Your task to perform on an android device: install app "DoorDash - Food Delivery" Image 0: 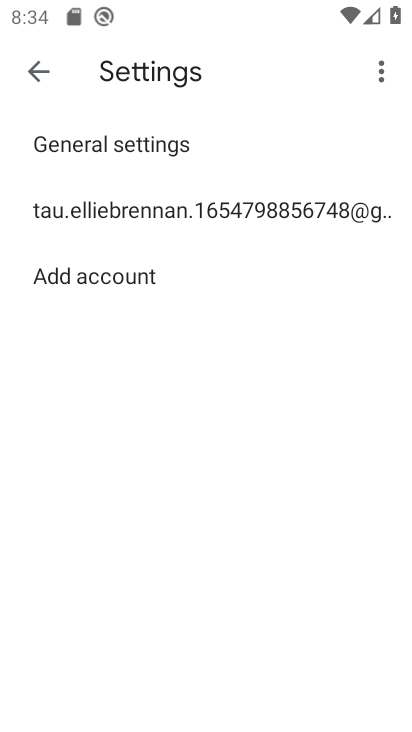
Step 0: press home button
Your task to perform on an android device: install app "DoorDash - Food Delivery" Image 1: 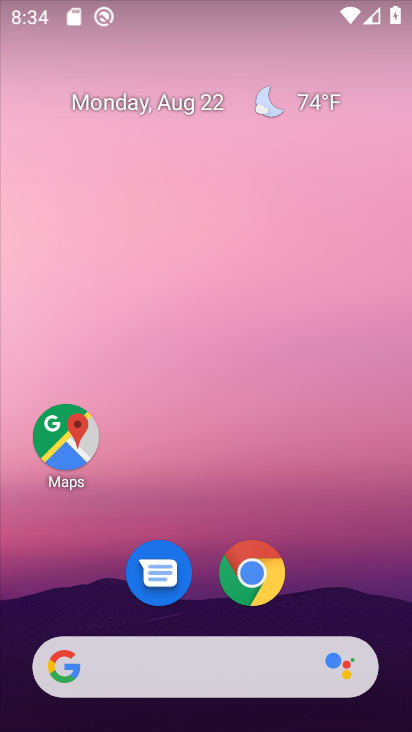
Step 1: drag from (193, 603) to (199, 215)
Your task to perform on an android device: install app "DoorDash - Food Delivery" Image 2: 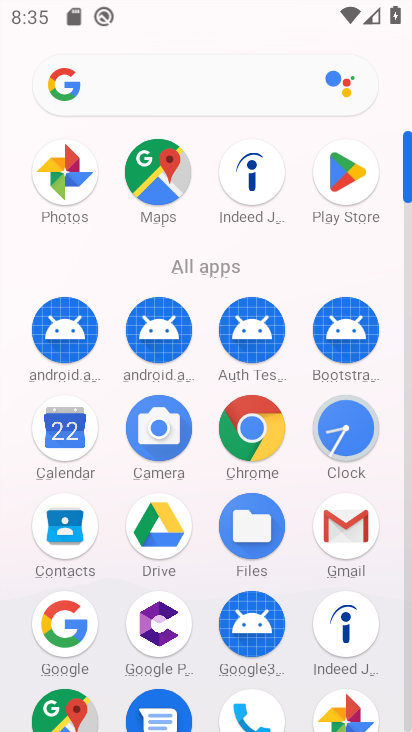
Step 2: click (356, 189)
Your task to perform on an android device: install app "DoorDash - Food Delivery" Image 3: 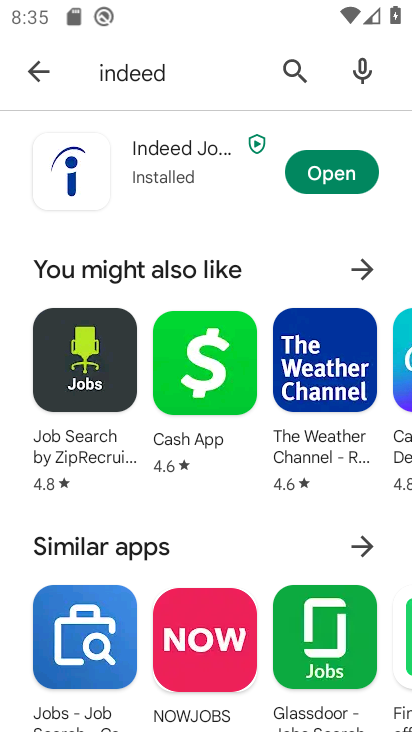
Step 3: click (178, 79)
Your task to perform on an android device: install app "DoorDash - Food Delivery" Image 4: 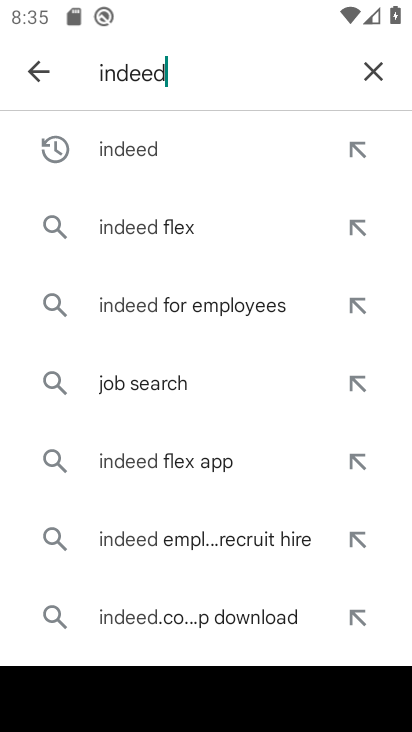
Step 4: click (366, 71)
Your task to perform on an android device: install app "DoorDash - Food Delivery" Image 5: 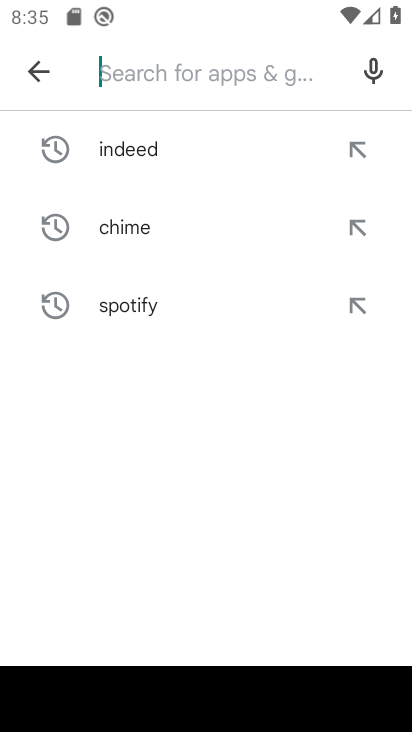
Step 5: type "DoorDash"
Your task to perform on an android device: install app "DoorDash - Food Delivery" Image 6: 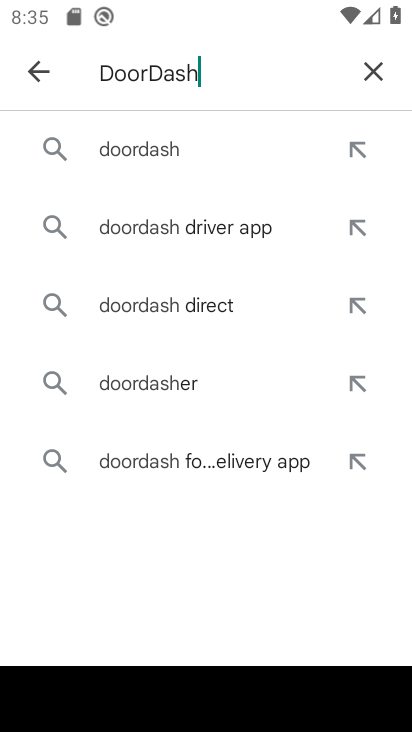
Step 6: type " - food delivery"
Your task to perform on an android device: install app "DoorDash - Food Delivery" Image 7: 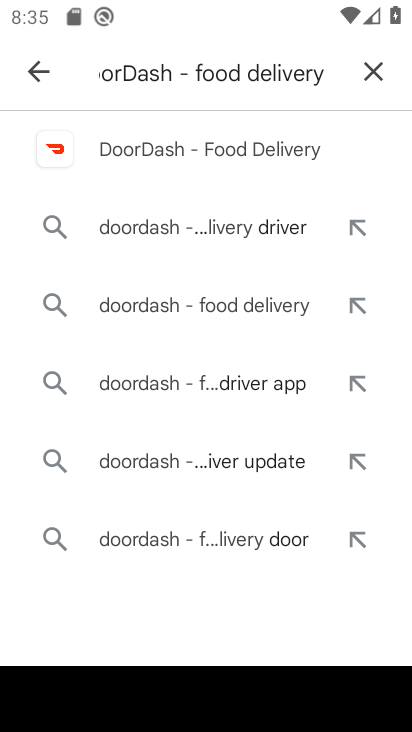
Step 7: click (203, 155)
Your task to perform on an android device: install app "DoorDash - Food Delivery" Image 8: 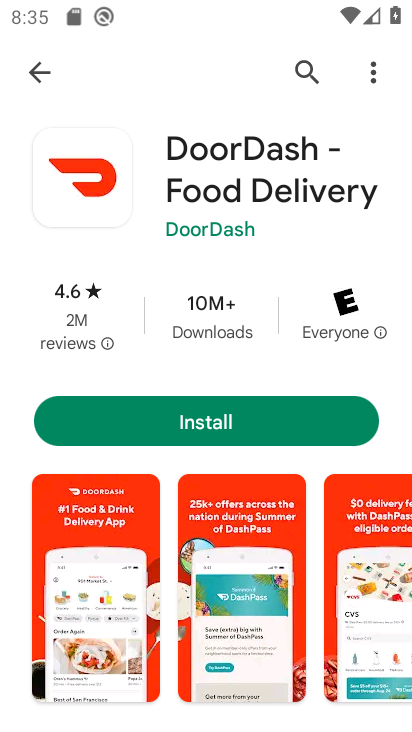
Step 8: click (251, 423)
Your task to perform on an android device: install app "DoorDash - Food Delivery" Image 9: 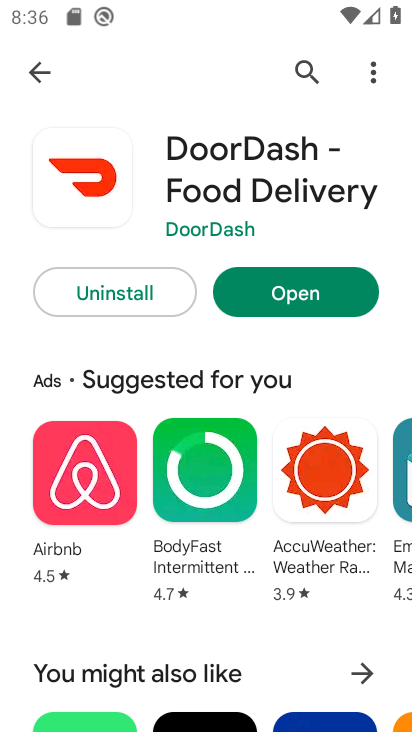
Step 9: click (307, 300)
Your task to perform on an android device: install app "DoorDash - Food Delivery" Image 10: 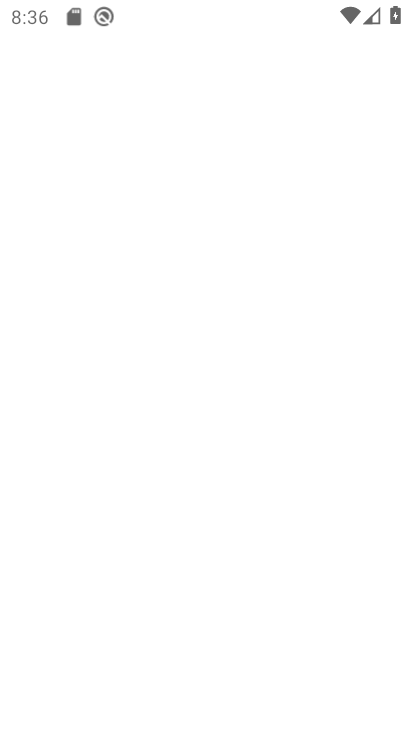
Step 10: task complete